Your task to perform on an android device: Open maps Image 0: 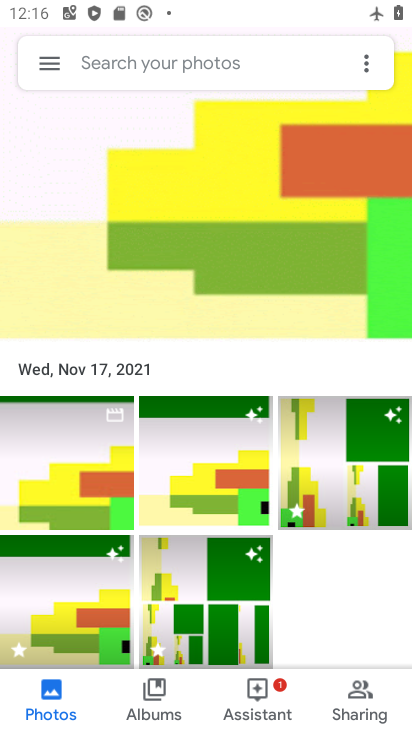
Step 0: press home button
Your task to perform on an android device: Open maps Image 1: 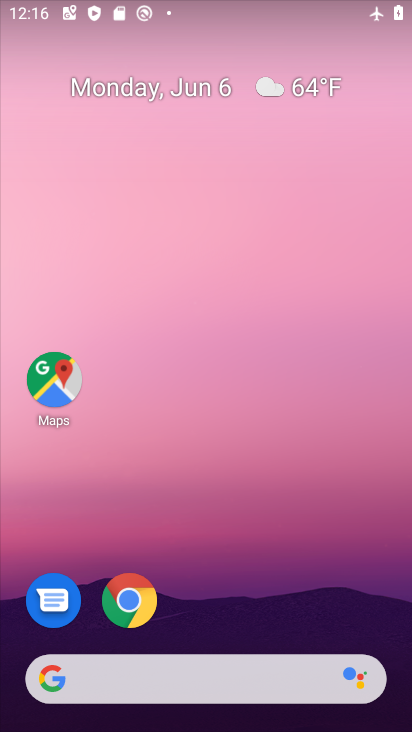
Step 1: click (60, 367)
Your task to perform on an android device: Open maps Image 2: 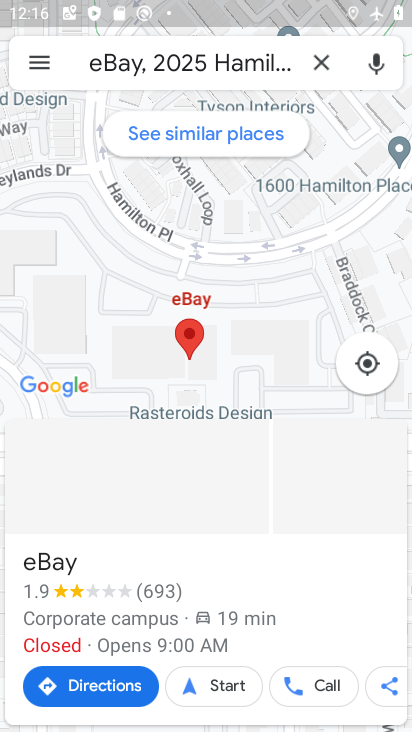
Step 2: drag from (208, 521) to (170, 146)
Your task to perform on an android device: Open maps Image 3: 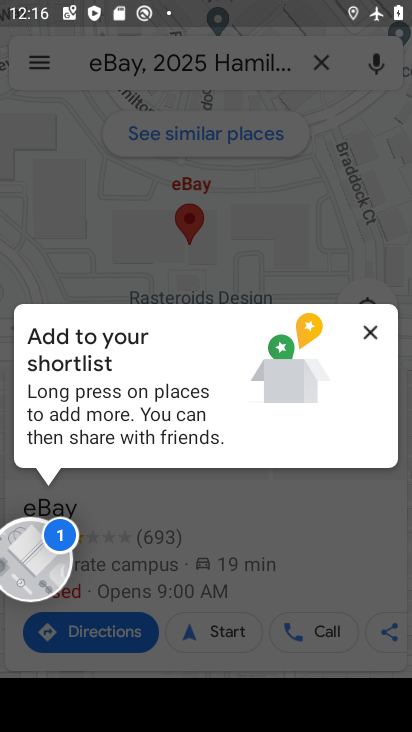
Step 3: click (373, 325)
Your task to perform on an android device: Open maps Image 4: 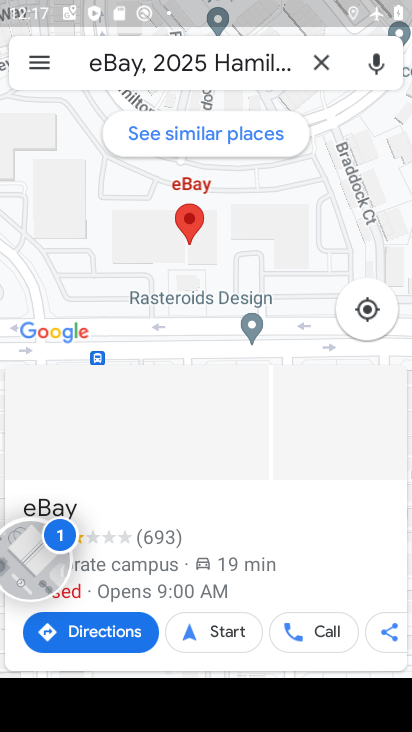
Step 4: task complete